Your task to perform on an android device: Go to Google Image 0: 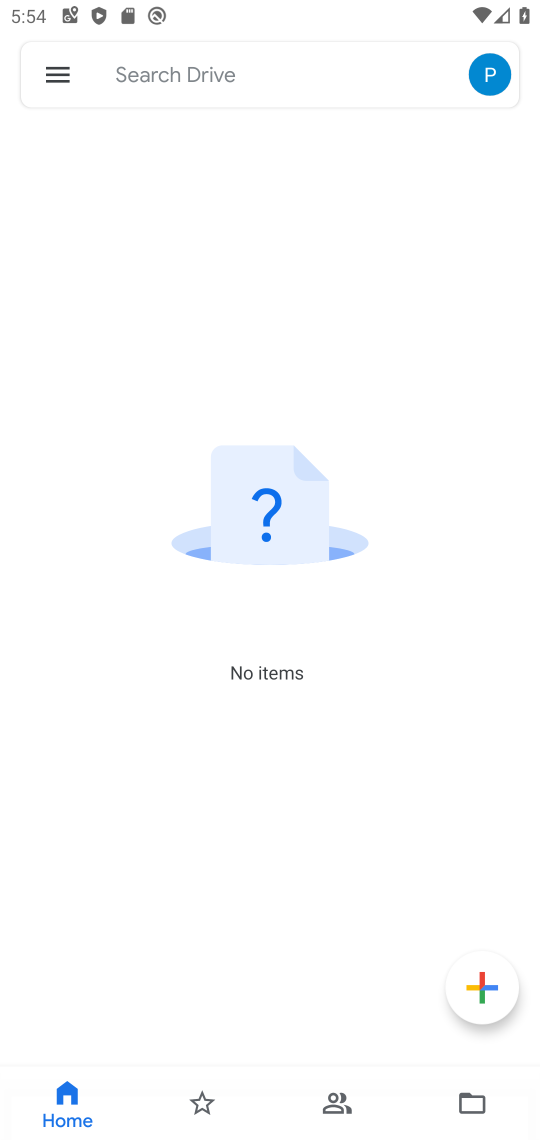
Step 0: press home button
Your task to perform on an android device: Go to Google Image 1: 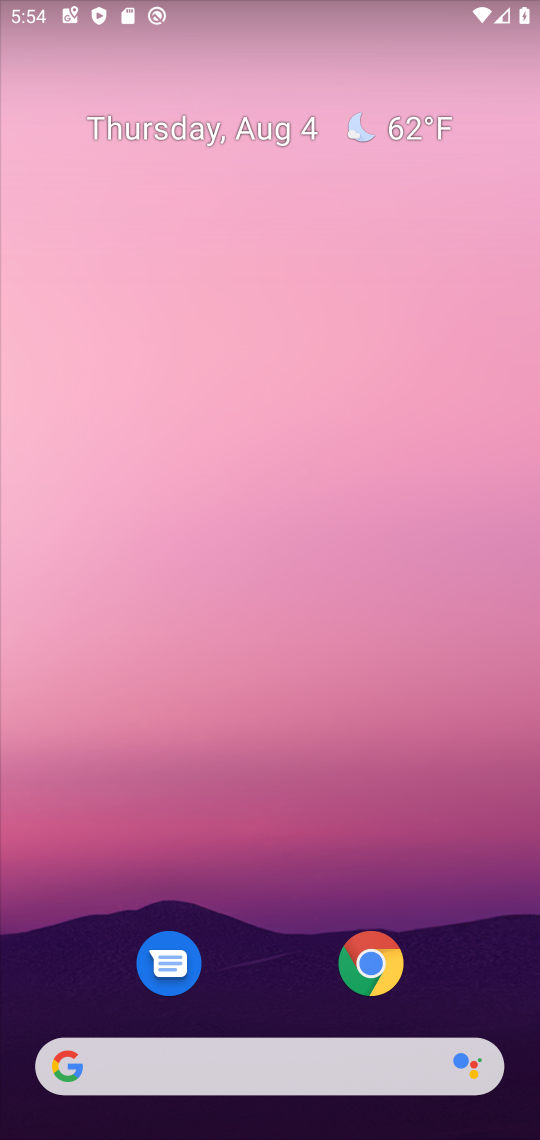
Step 1: click (73, 1060)
Your task to perform on an android device: Go to Google Image 2: 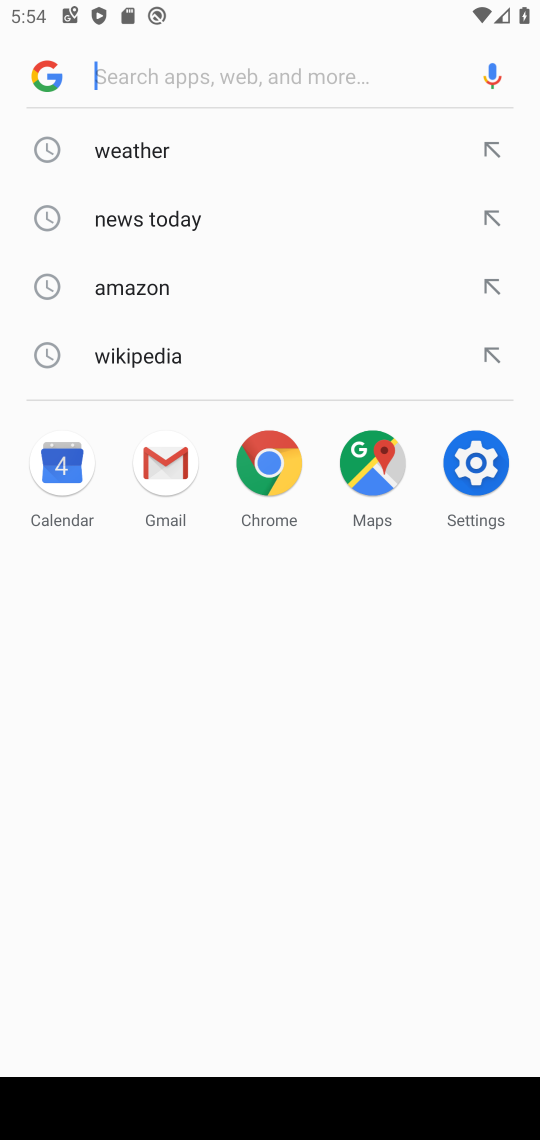
Step 2: click (56, 79)
Your task to perform on an android device: Go to Google Image 3: 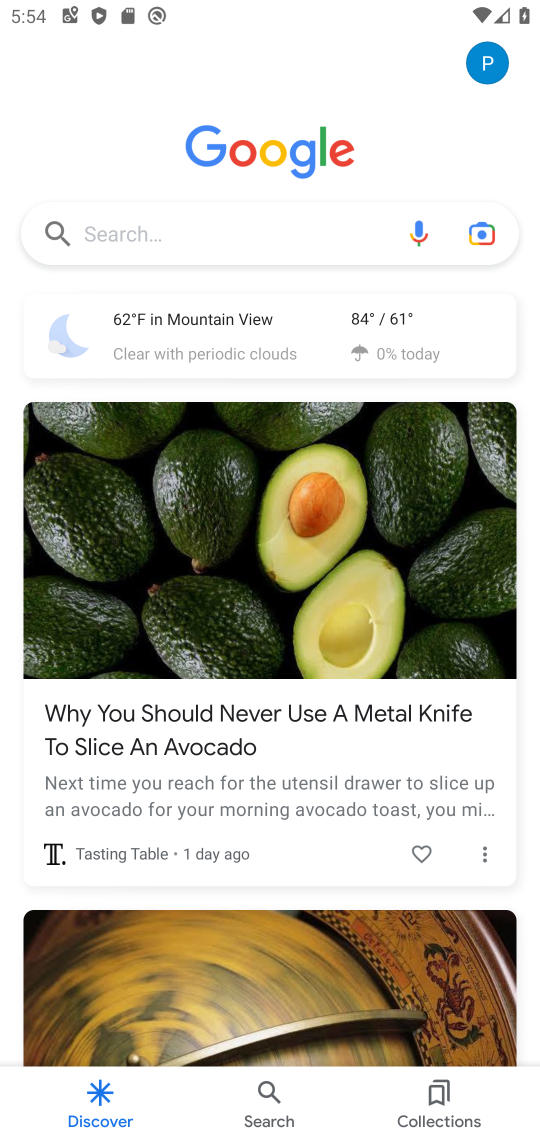
Step 3: task complete